Your task to perform on an android device: Open the web browser Image 0: 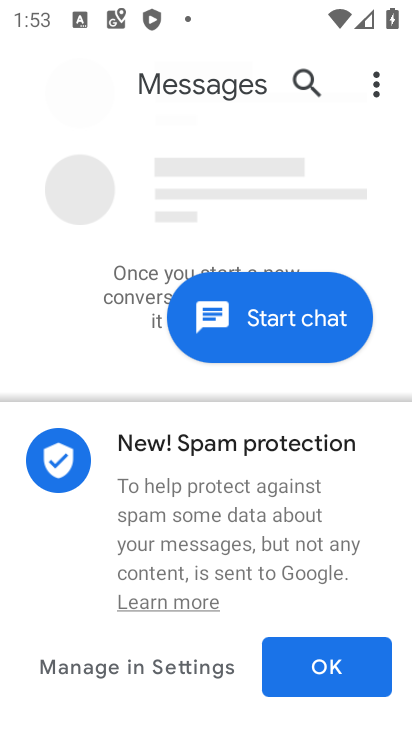
Step 0: press home button
Your task to perform on an android device: Open the web browser Image 1: 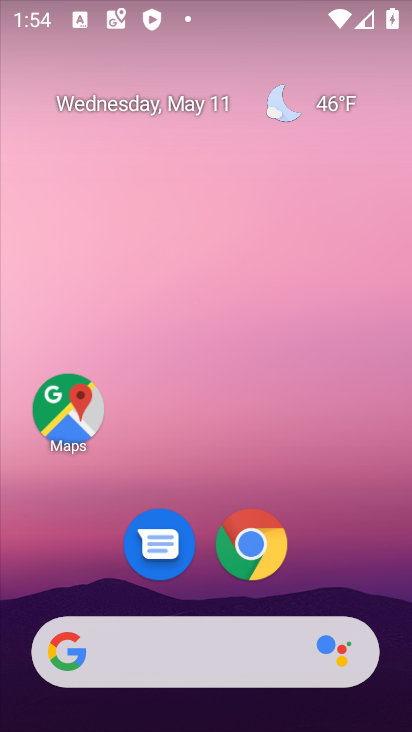
Step 1: click (252, 548)
Your task to perform on an android device: Open the web browser Image 2: 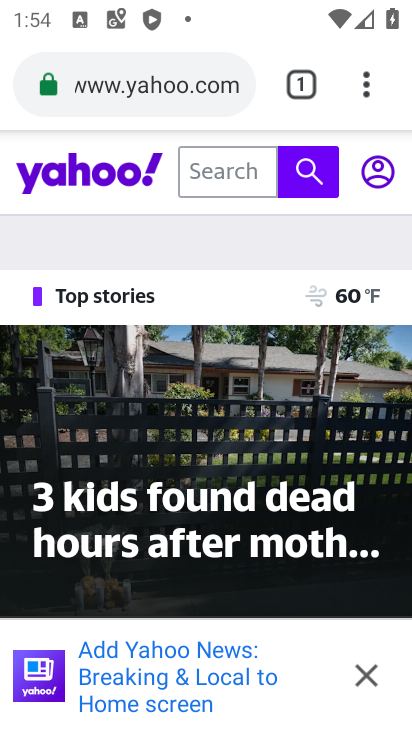
Step 2: task complete